Your task to perform on an android device: turn off picture-in-picture Image 0: 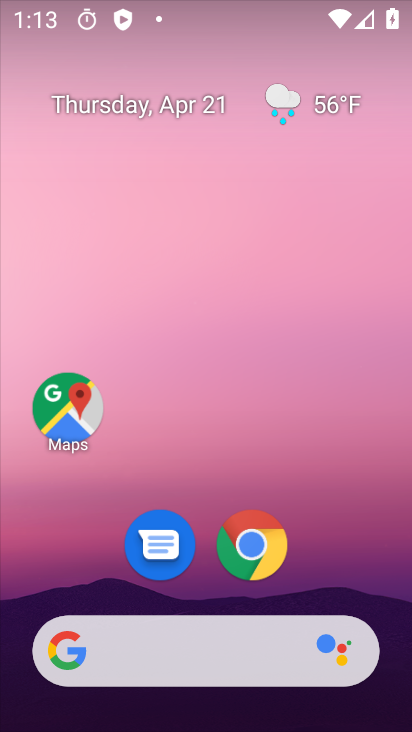
Step 0: drag from (256, 547) to (273, 516)
Your task to perform on an android device: turn off picture-in-picture Image 1: 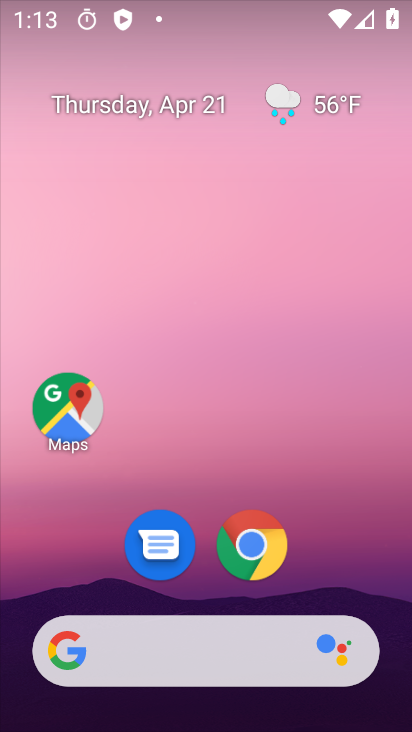
Step 1: click (267, 277)
Your task to perform on an android device: turn off picture-in-picture Image 2: 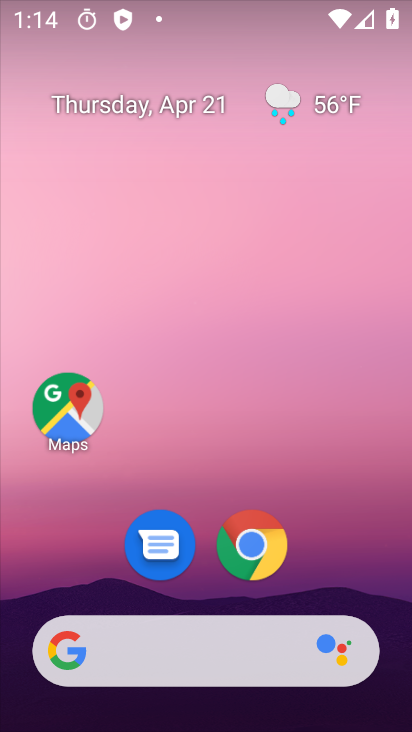
Step 2: drag from (253, 537) to (317, 293)
Your task to perform on an android device: turn off picture-in-picture Image 3: 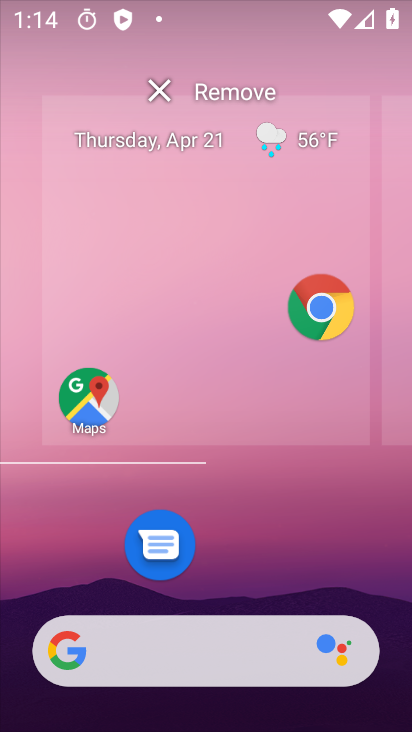
Step 3: click (279, 273)
Your task to perform on an android device: turn off picture-in-picture Image 4: 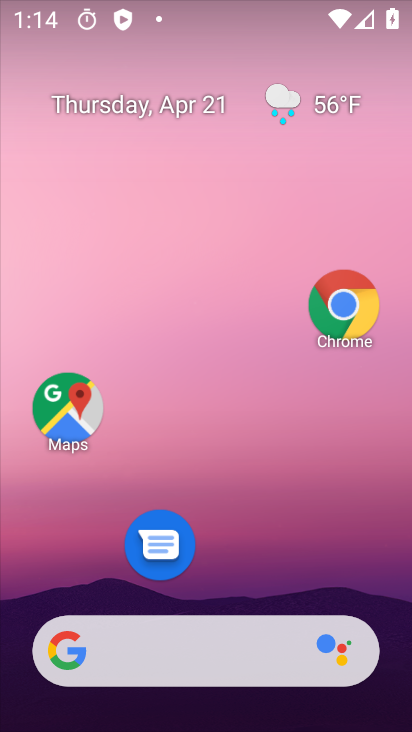
Step 4: click (345, 317)
Your task to perform on an android device: turn off picture-in-picture Image 5: 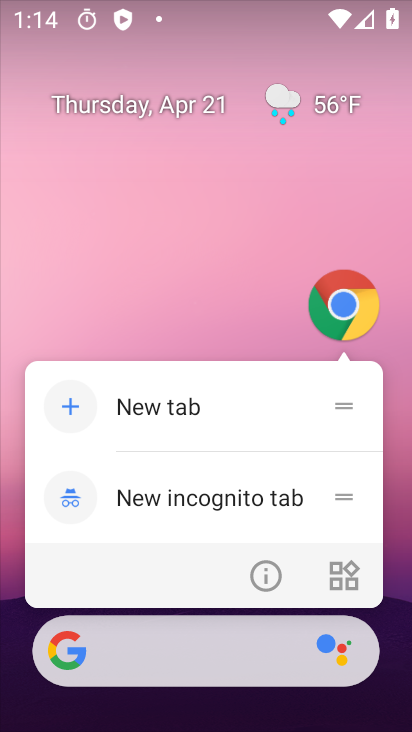
Step 5: click (264, 572)
Your task to perform on an android device: turn off picture-in-picture Image 6: 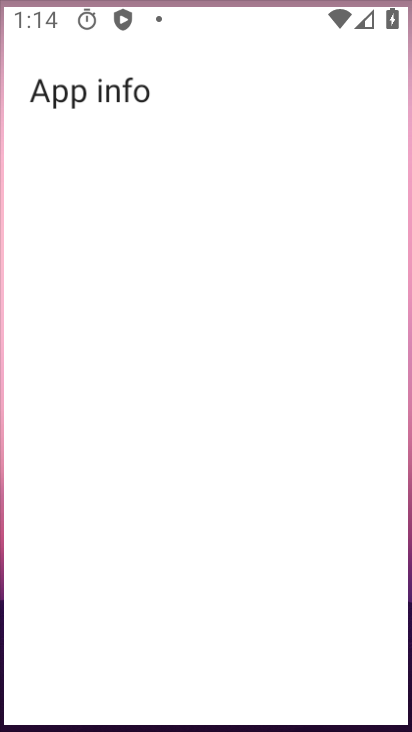
Step 6: click (264, 575)
Your task to perform on an android device: turn off picture-in-picture Image 7: 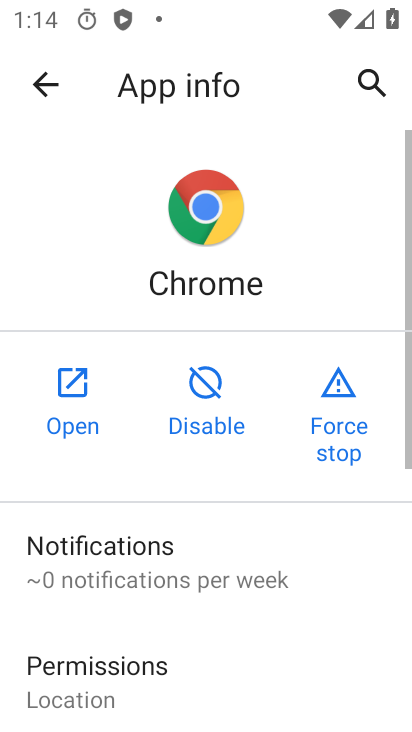
Step 7: drag from (182, 595) to (271, 196)
Your task to perform on an android device: turn off picture-in-picture Image 8: 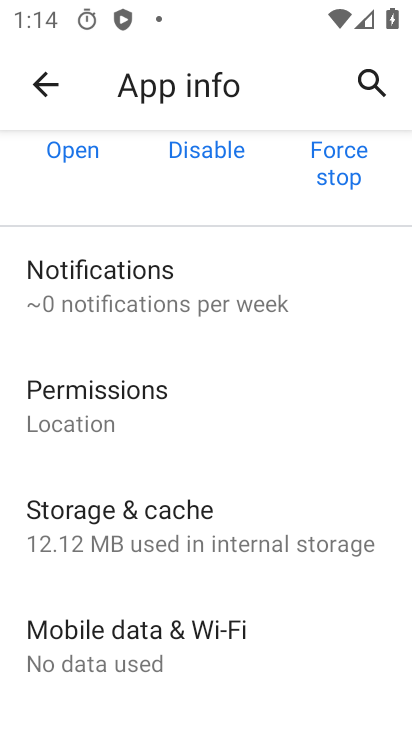
Step 8: drag from (194, 640) to (357, 72)
Your task to perform on an android device: turn off picture-in-picture Image 9: 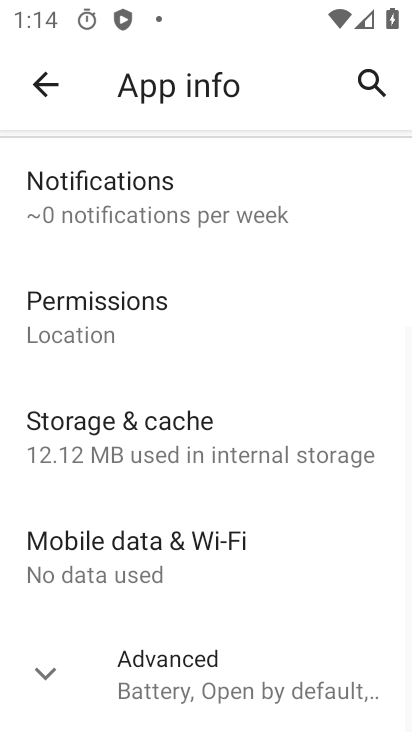
Step 9: click (107, 663)
Your task to perform on an android device: turn off picture-in-picture Image 10: 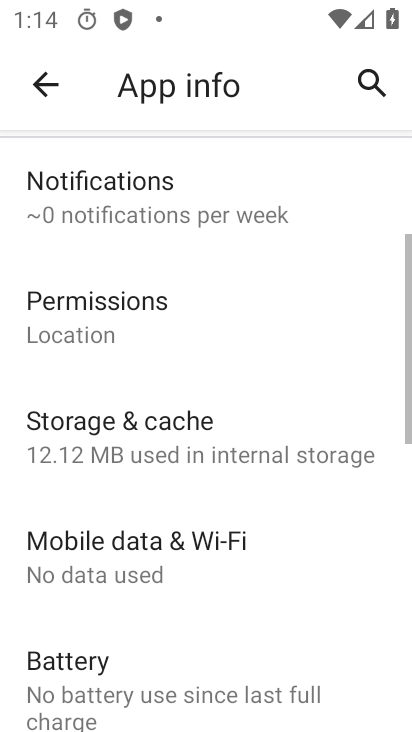
Step 10: drag from (116, 657) to (279, 242)
Your task to perform on an android device: turn off picture-in-picture Image 11: 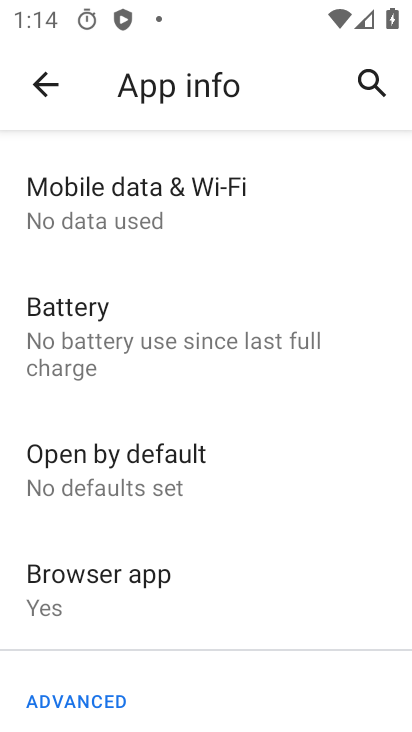
Step 11: drag from (185, 617) to (260, 101)
Your task to perform on an android device: turn off picture-in-picture Image 12: 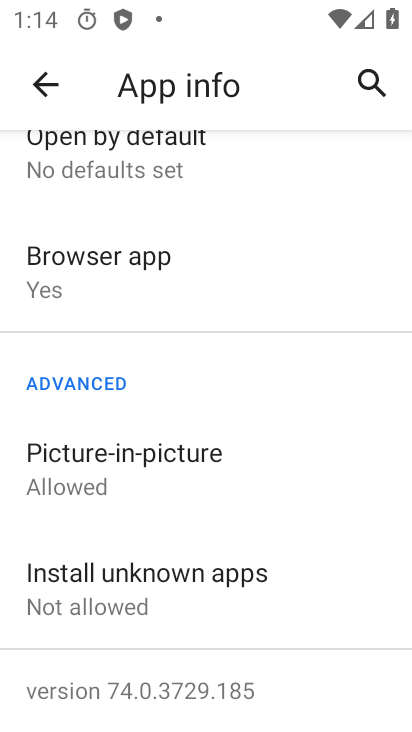
Step 12: click (121, 459)
Your task to perform on an android device: turn off picture-in-picture Image 13: 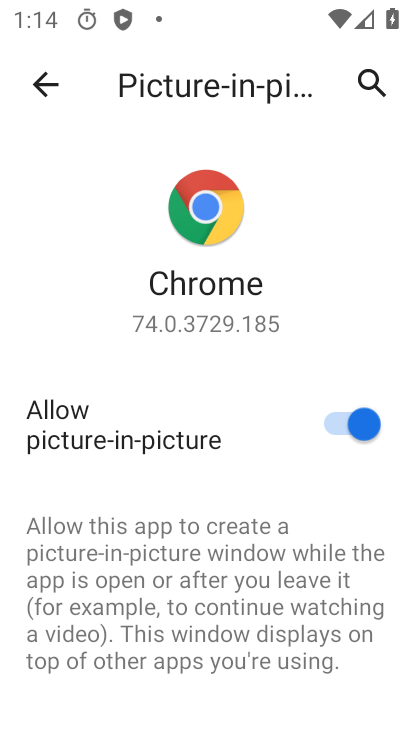
Step 13: click (341, 427)
Your task to perform on an android device: turn off picture-in-picture Image 14: 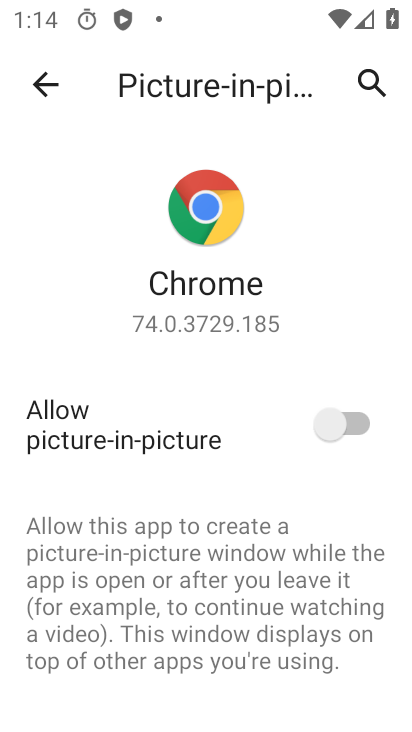
Step 14: task complete